Your task to perform on an android device: Is it going to rain this weekend? Image 0: 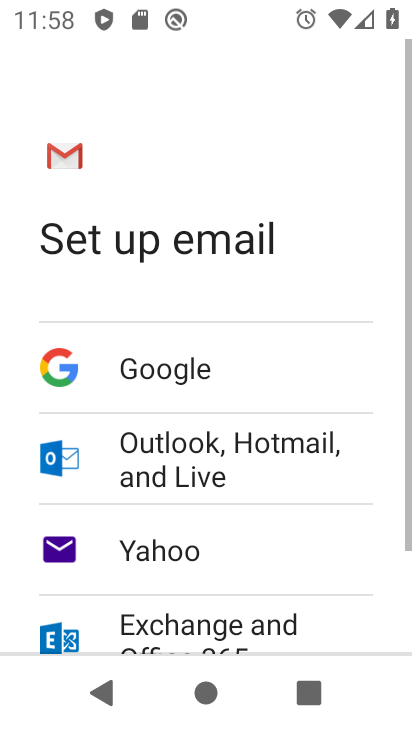
Step 0: press home button
Your task to perform on an android device: Is it going to rain this weekend? Image 1: 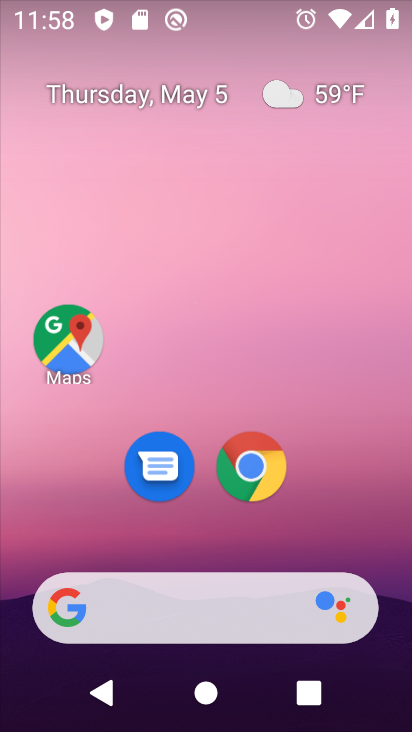
Step 1: click (253, 458)
Your task to perform on an android device: Is it going to rain this weekend? Image 2: 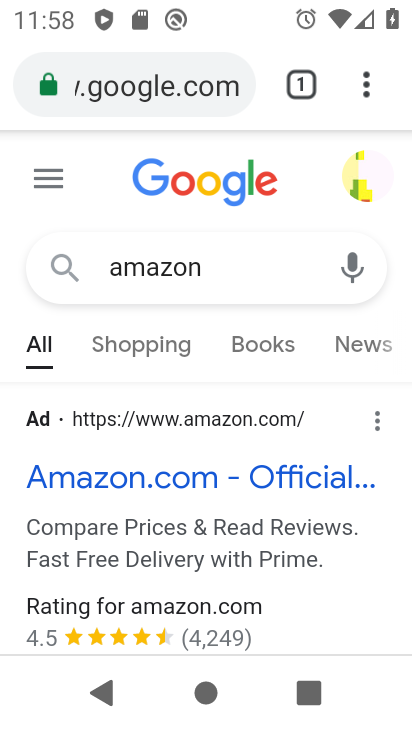
Step 2: click (178, 92)
Your task to perform on an android device: Is it going to rain this weekend? Image 3: 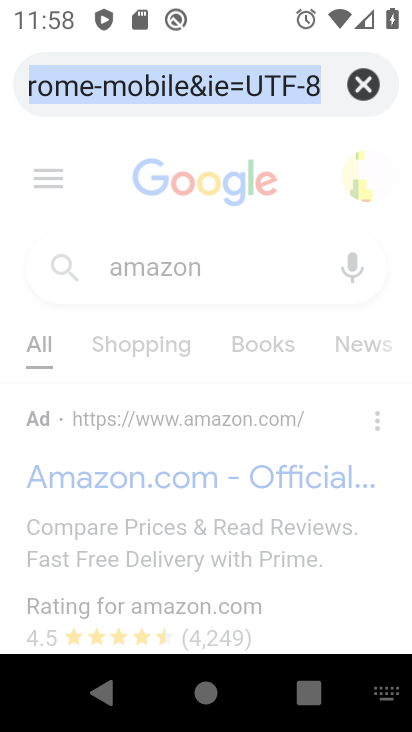
Step 3: type "is it going to rain this weekend?"
Your task to perform on an android device: Is it going to rain this weekend? Image 4: 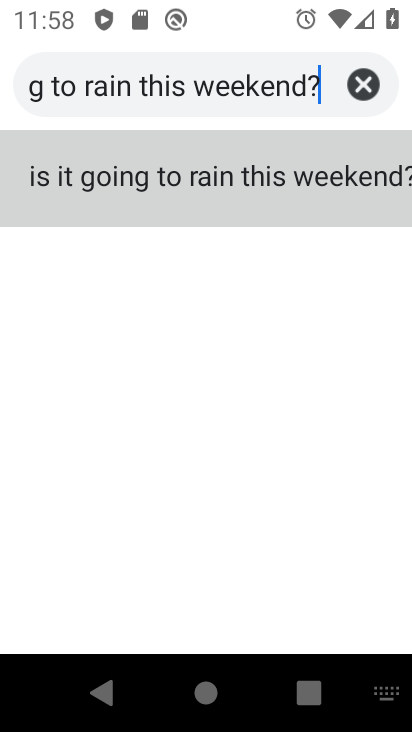
Step 4: click (110, 173)
Your task to perform on an android device: Is it going to rain this weekend? Image 5: 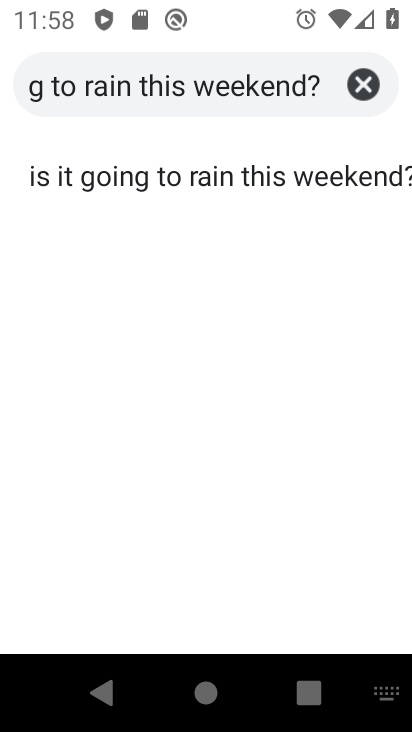
Step 5: click (181, 179)
Your task to perform on an android device: Is it going to rain this weekend? Image 6: 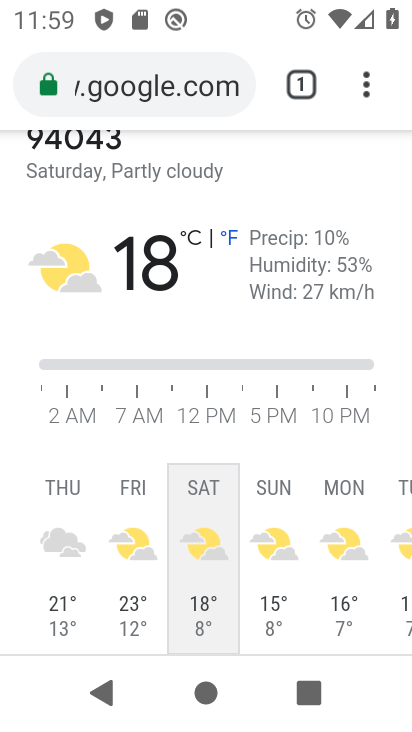
Step 6: task complete